Your task to perform on an android device: open app "Airtel Thanks" Image 0: 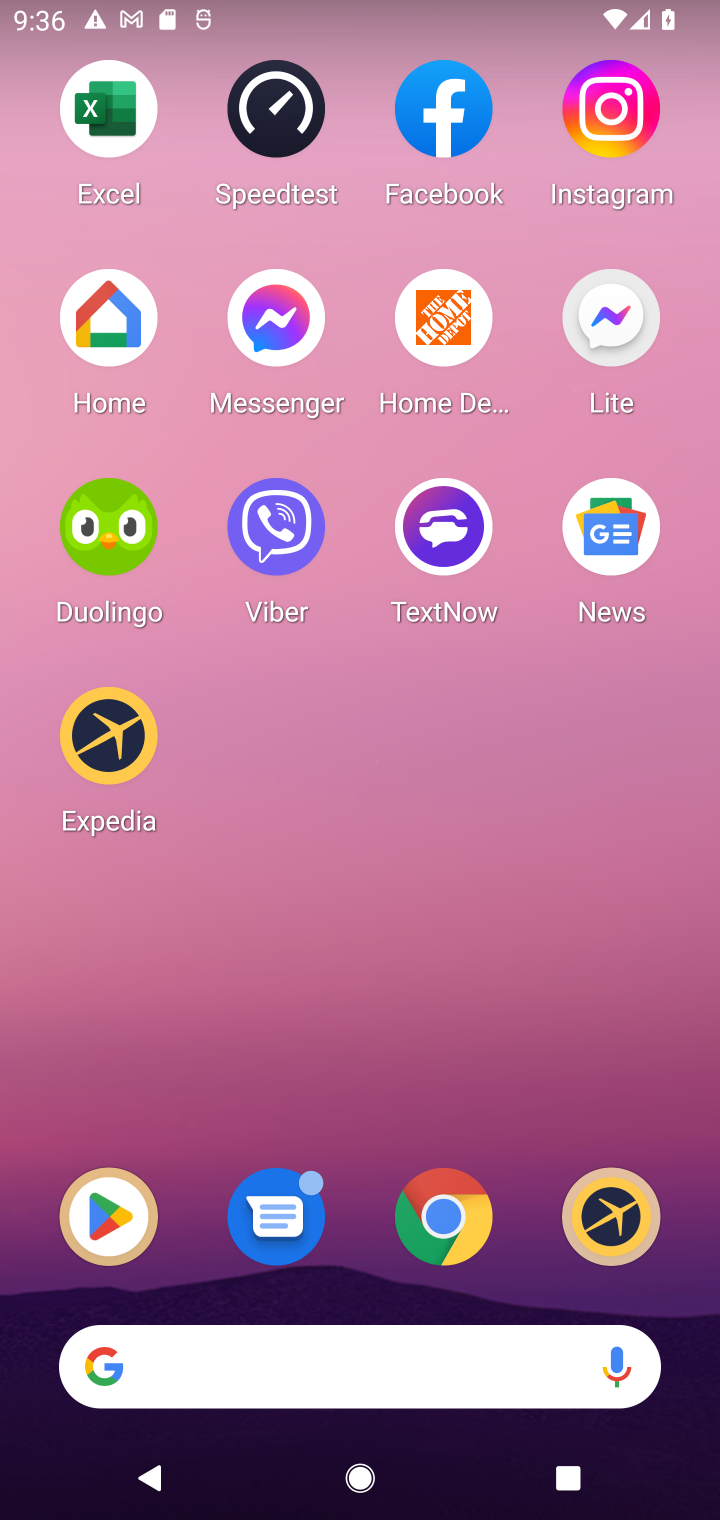
Step 0: press home button
Your task to perform on an android device: open app "Airtel Thanks" Image 1: 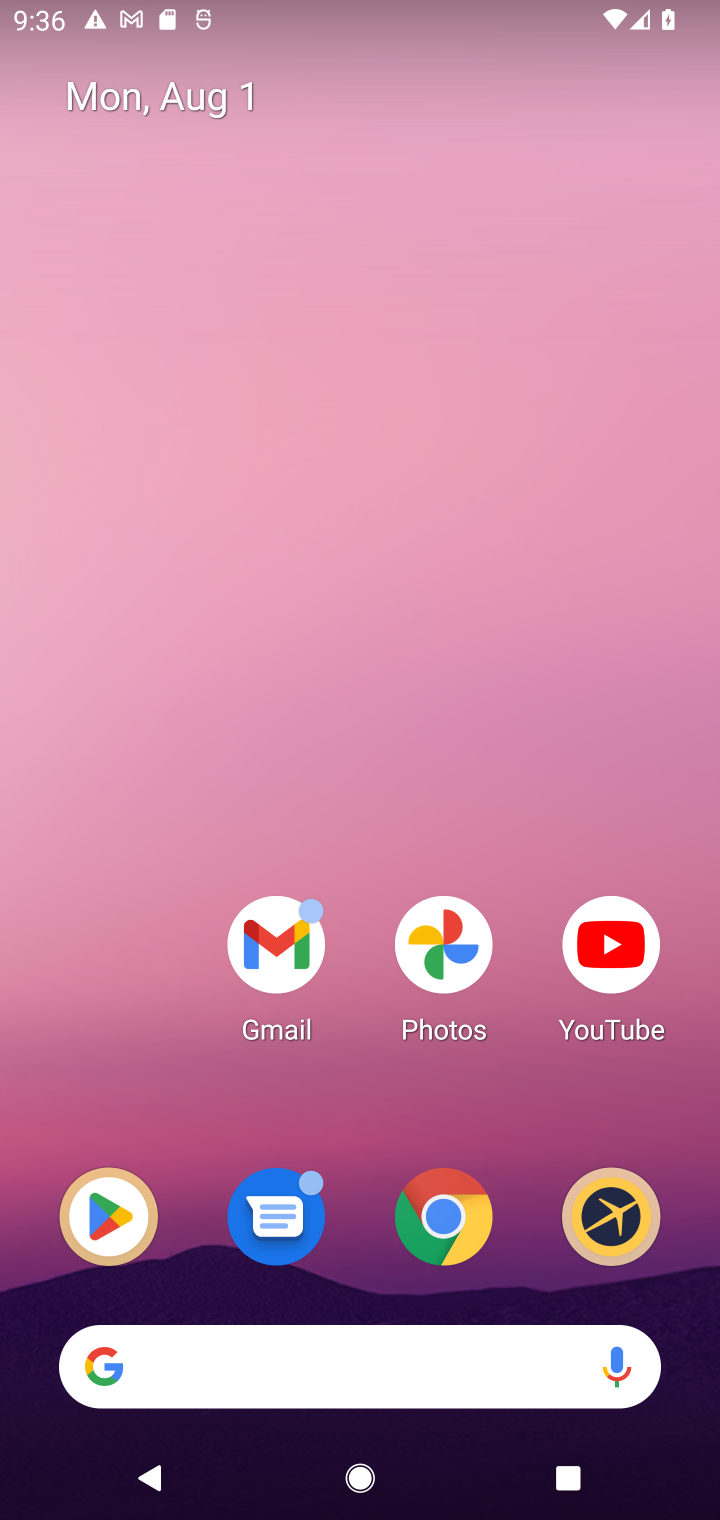
Step 1: click (112, 1227)
Your task to perform on an android device: open app "Airtel Thanks" Image 2: 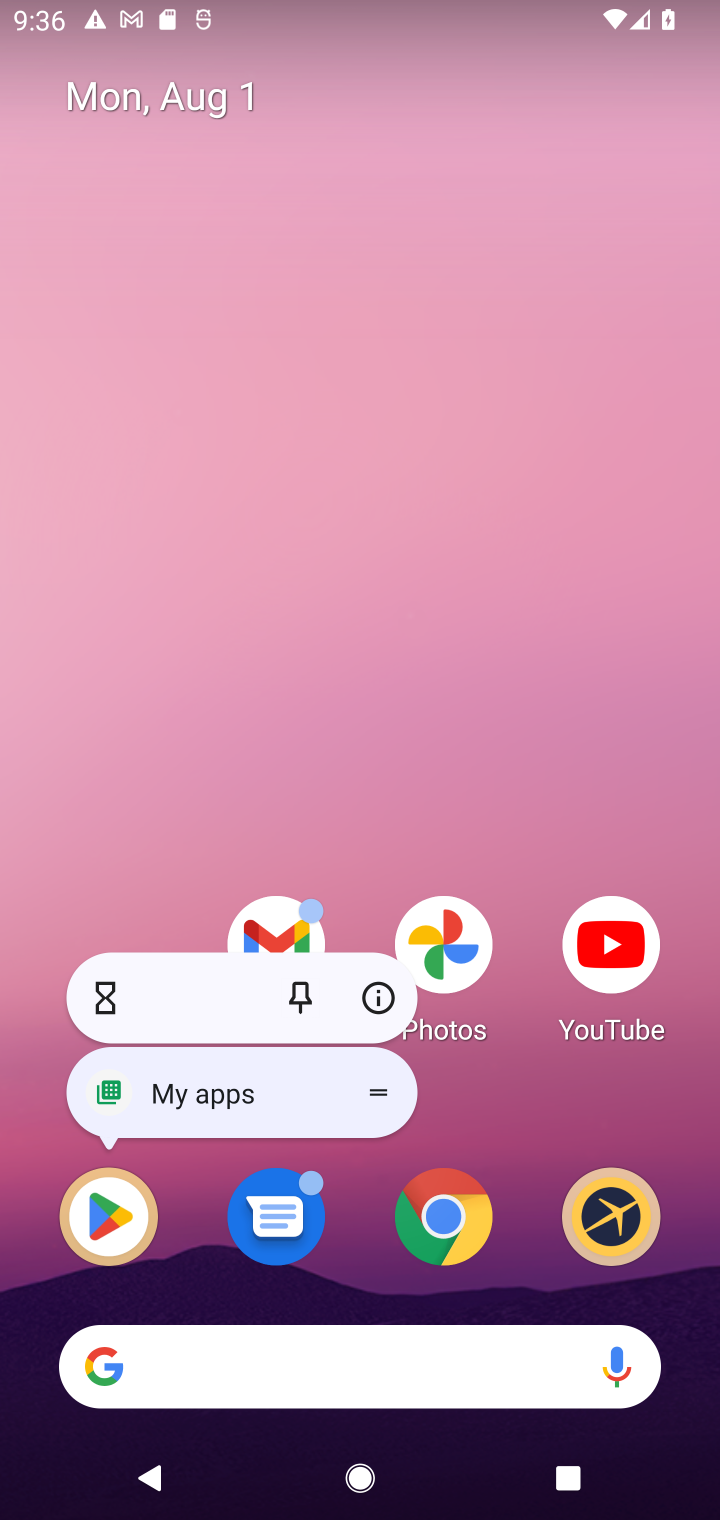
Step 2: click (112, 1227)
Your task to perform on an android device: open app "Airtel Thanks" Image 3: 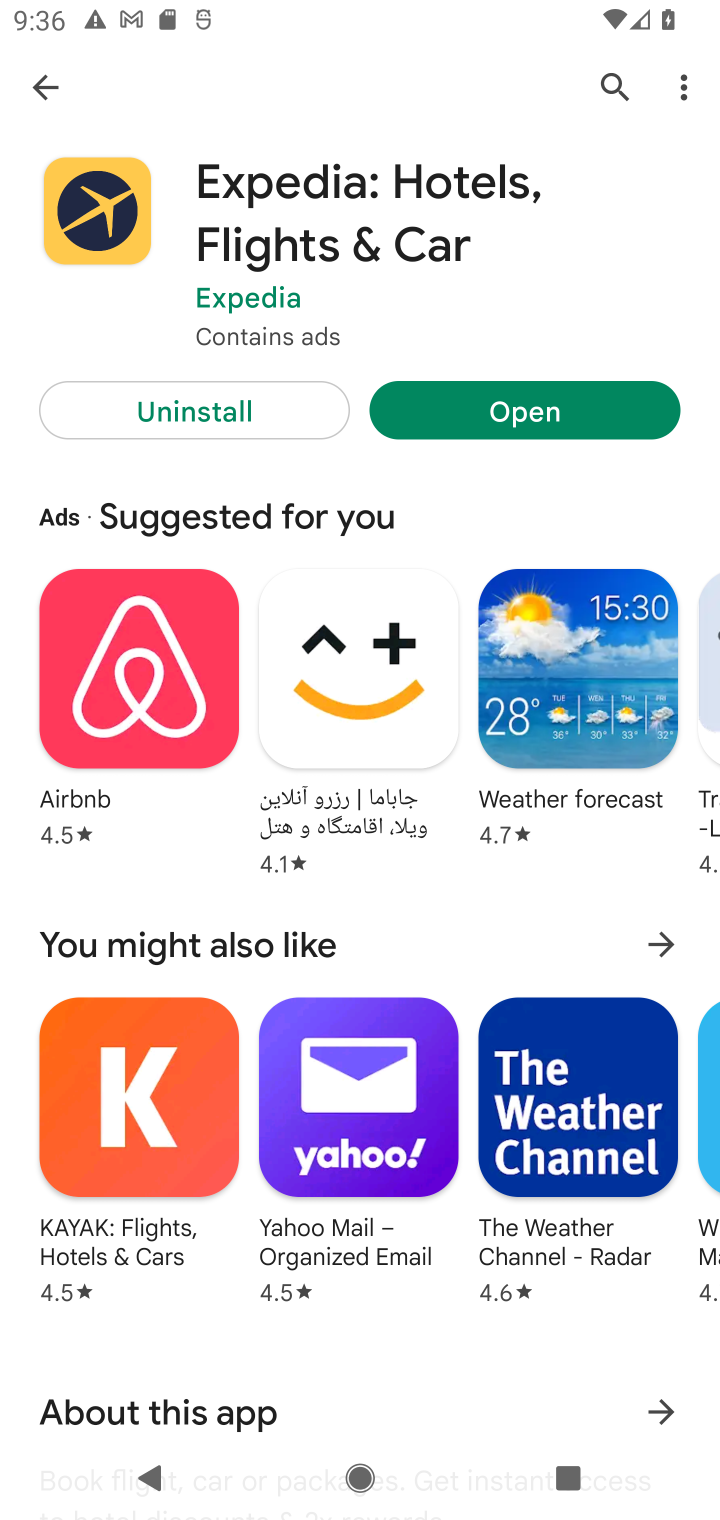
Step 3: click (609, 82)
Your task to perform on an android device: open app "Airtel Thanks" Image 4: 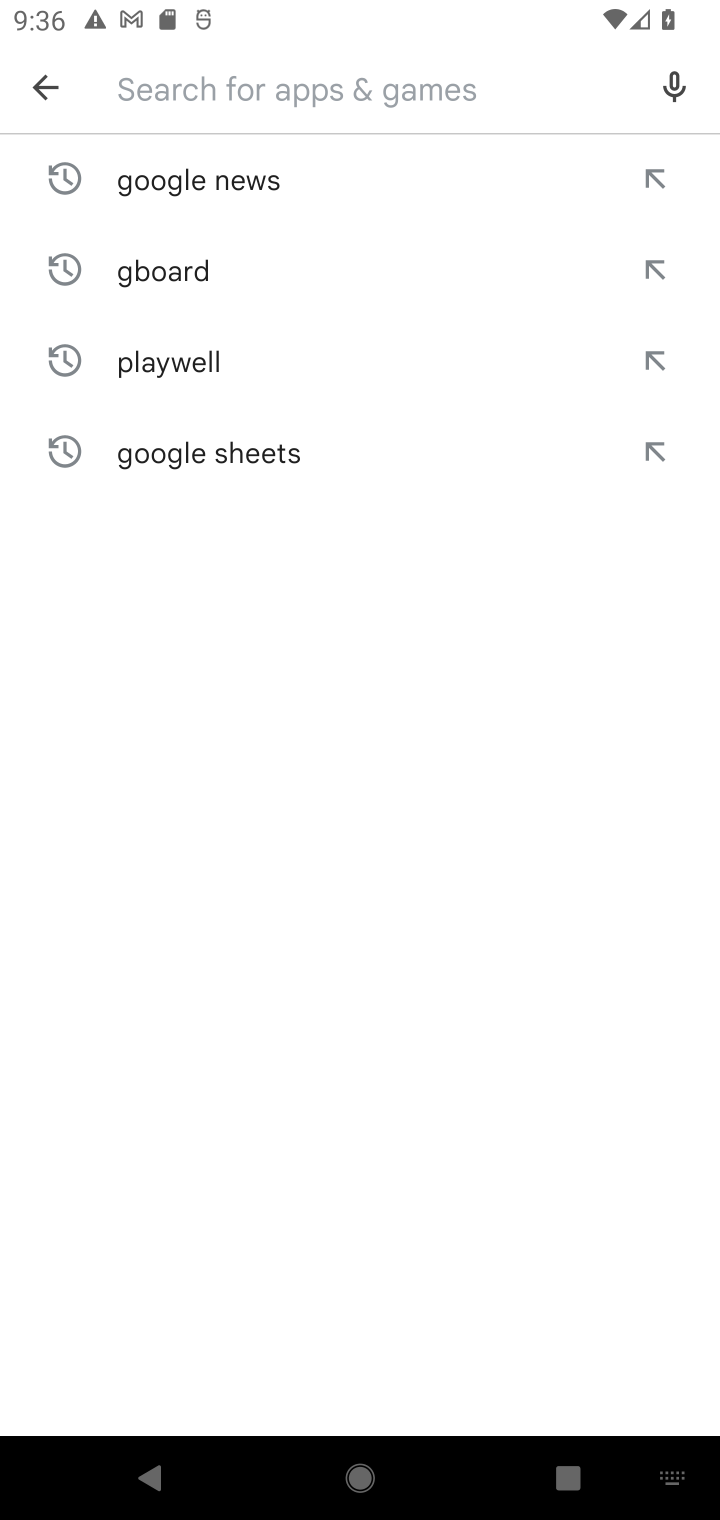
Step 4: type "Airtel Thanks"
Your task to perform on an android device: open app "Airtel Thanks" Image 5: 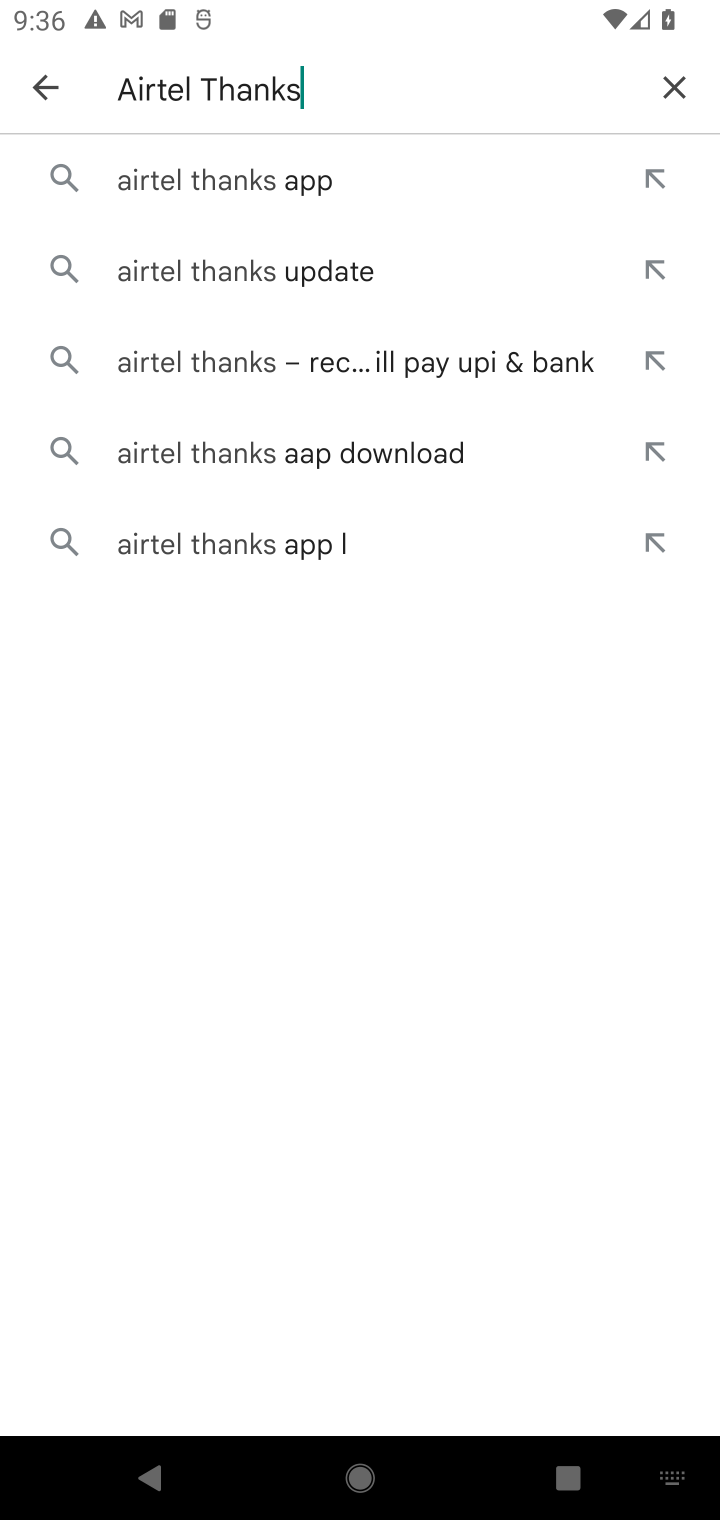
Step 5: click (197, 196)
Your task to perform on an android device: open app "Airtel Thanks" Image 6: 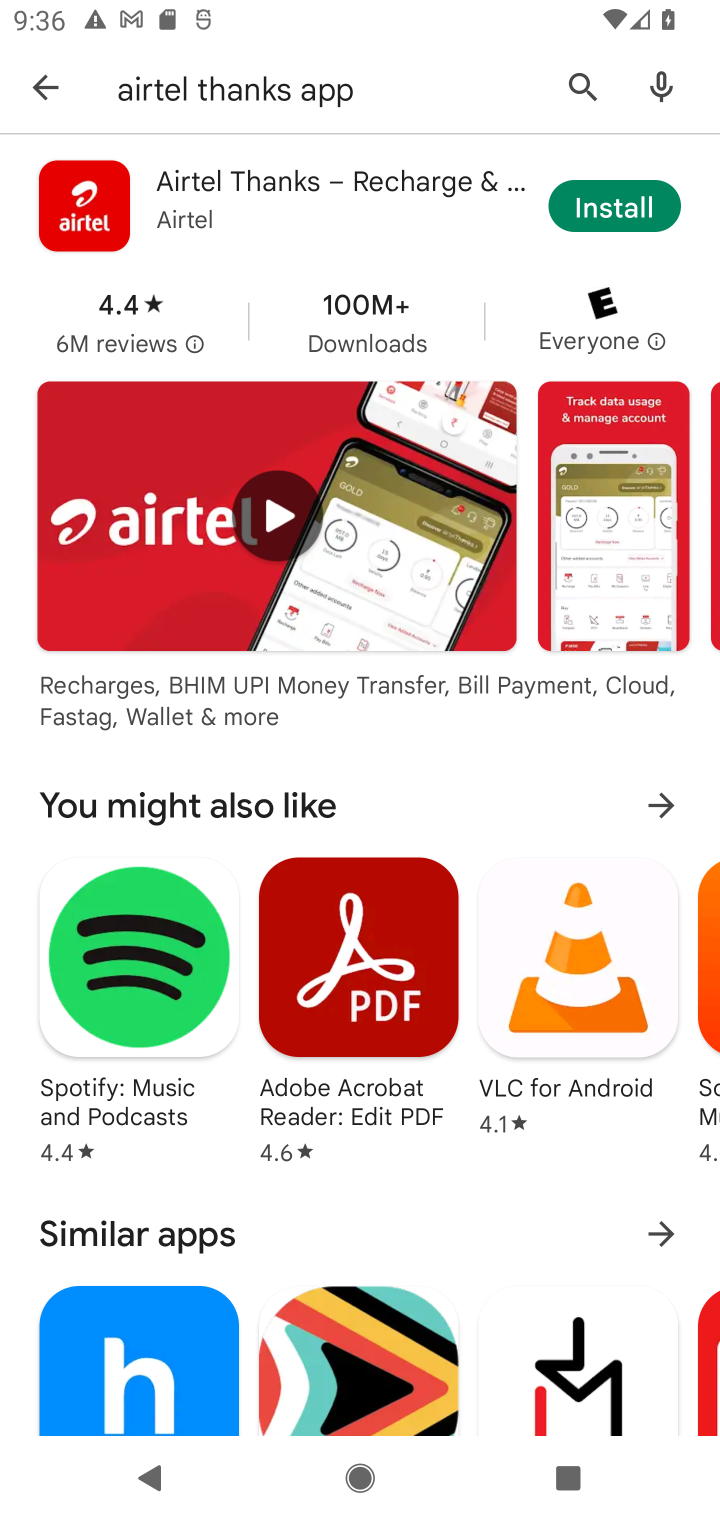
Step 6: task complete